Your task to perform on an android device: Open Android settings Image 0: 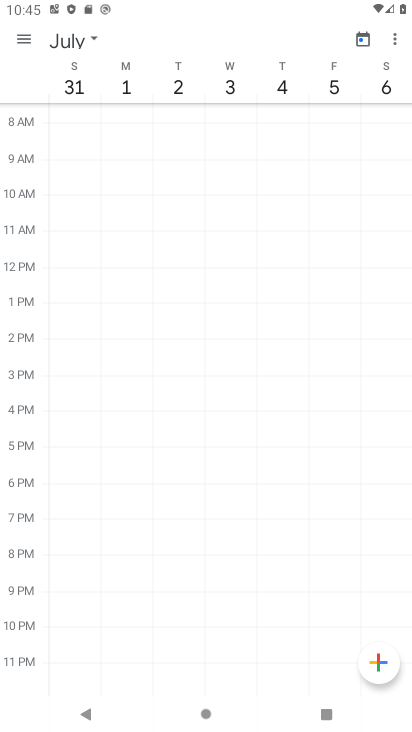
Step 0: press home button
Your task to perform on an android device: Open Android settings Image 1: 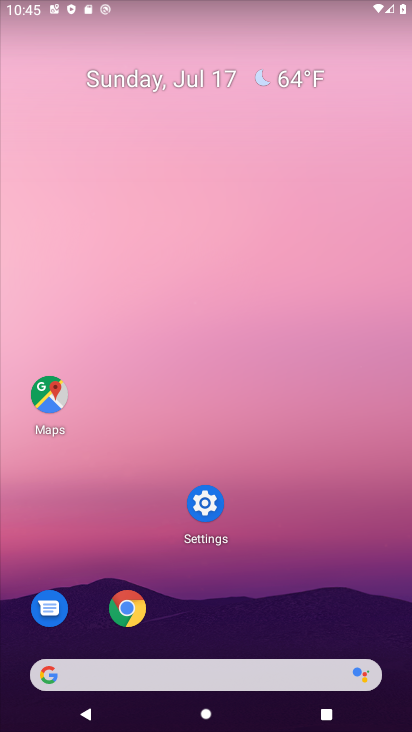
Step 1: click (203, 502)
Your task to perform on an android device: Open Android settings Image 2: 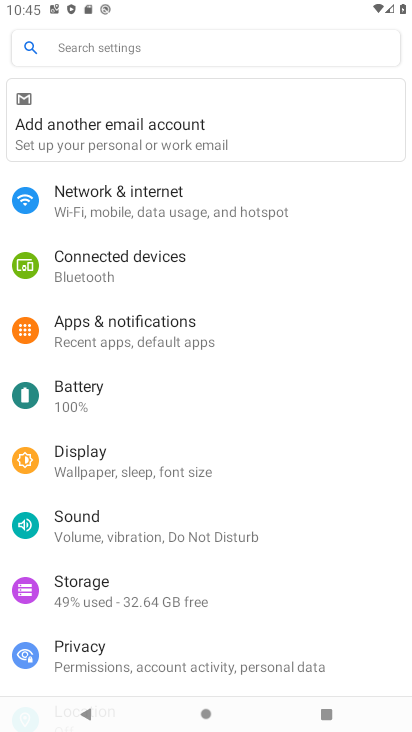
Step 2: task complete